Your task to perform on an android device: toggle location history Image 0: 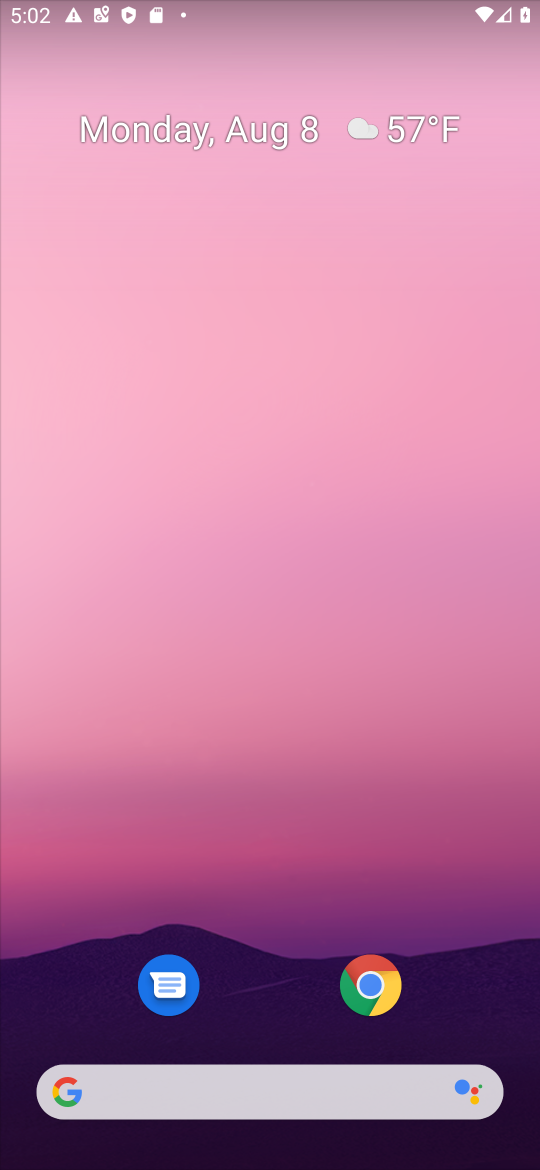
Step 0: drag from (263, 813) to (411, 8)
Your task to perform on an android device: toggle location history Image 1: 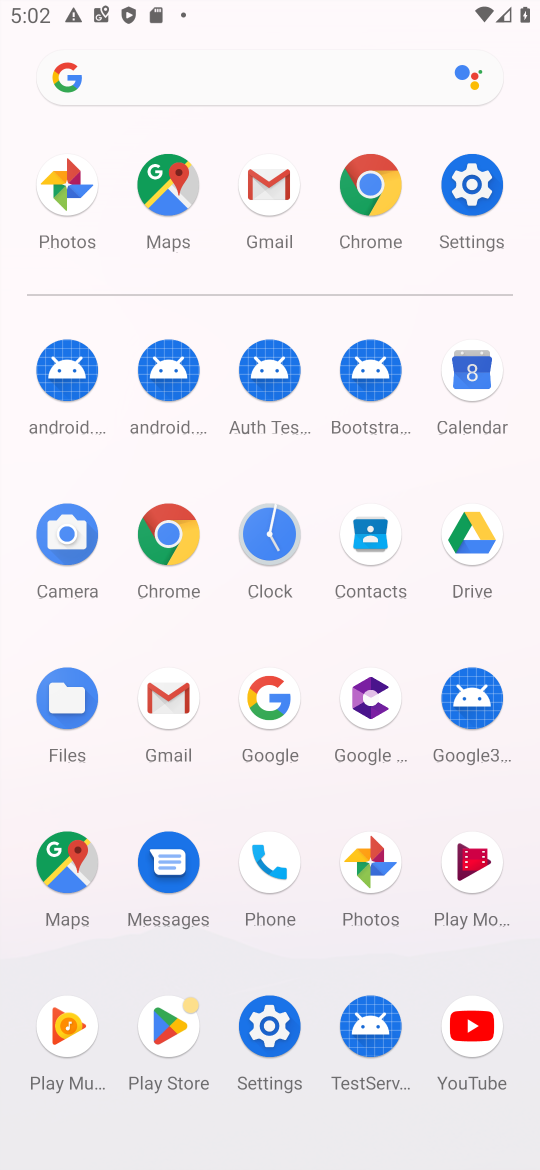
Step 1: click (447, 199)
Your task to perform on an android device: toggle location history Image 2: 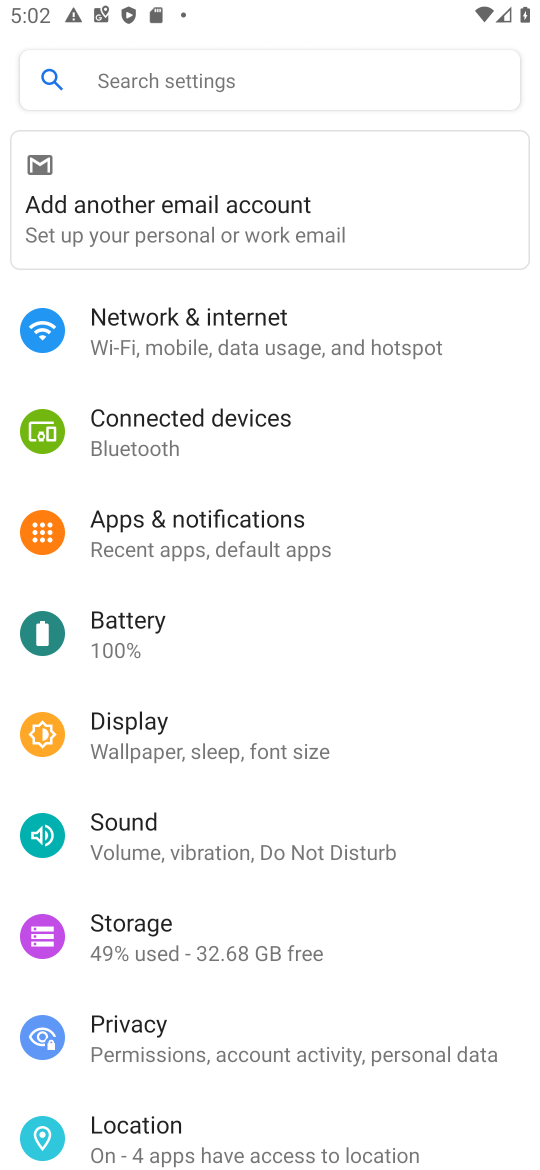
Step 2: click (171, 1127)
Your task to perform on an android device: toggle location history Image 3: 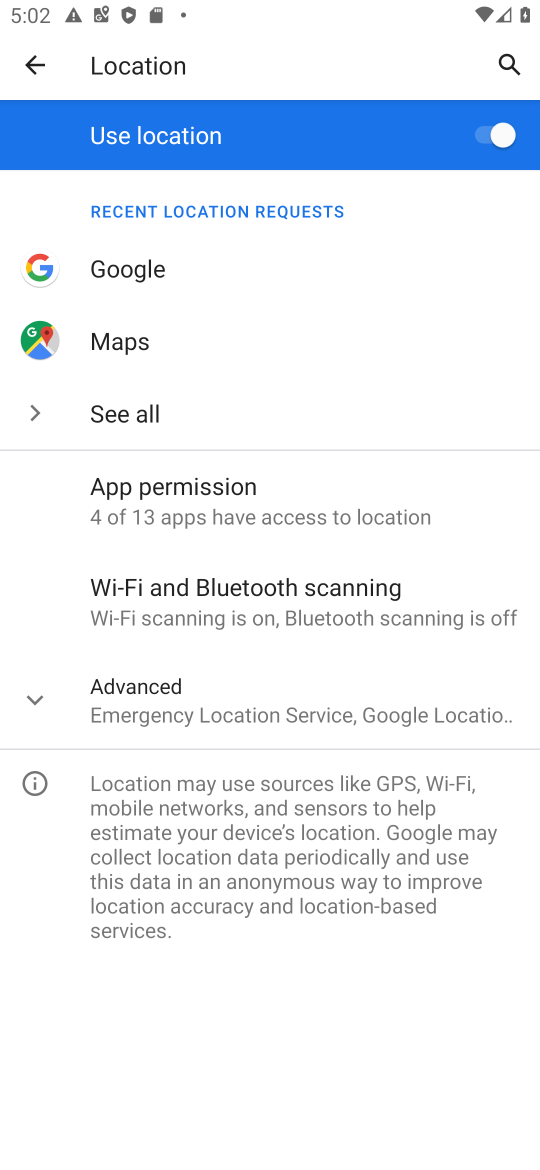
Step 3: task complete